Your task to perform on an android device: Go to CNN.com Image 0: 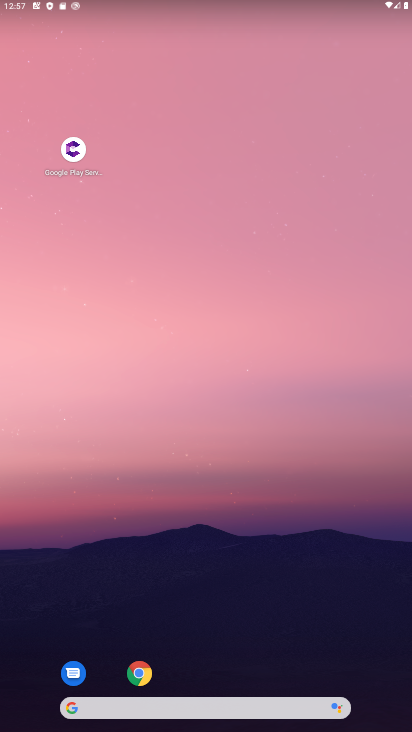
Step 0: click (136, 673)
Your task to perform on an android device: Go to CNN.com Image 1: 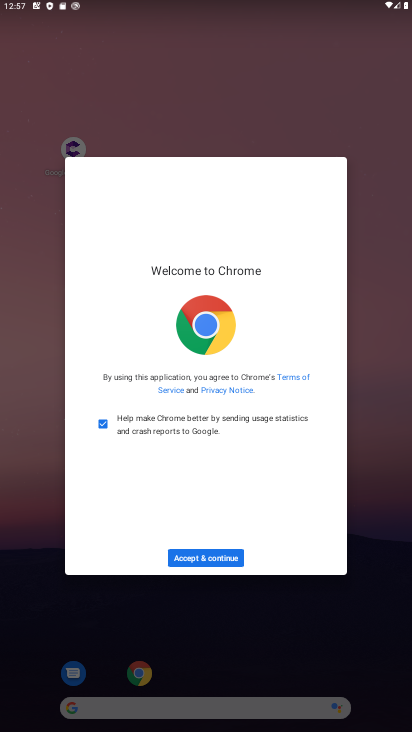
Step 1: click (206, 556)
Your task to perform on an android device: Go to CNN.com Image 2: 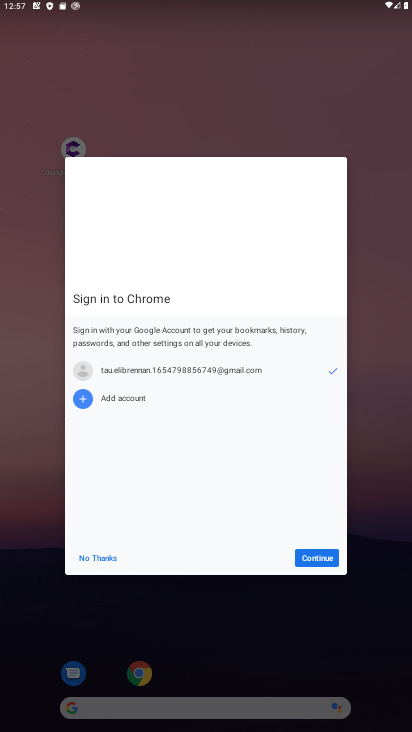
Step 2: click (308, 560)
Your task to perform on an android device: Go to CNN.com Image 3: 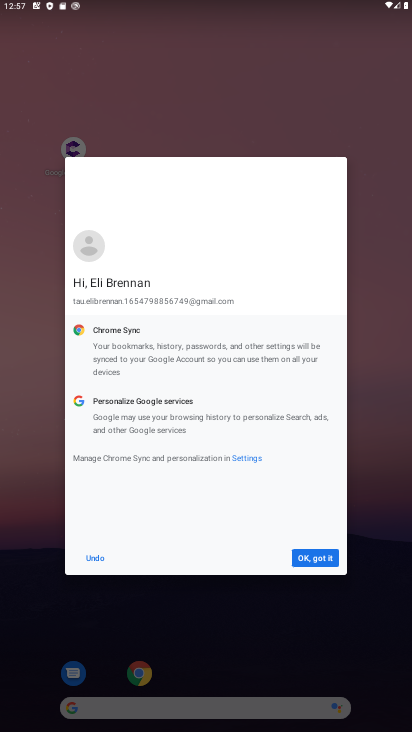
Step 3: click (308, 560)
Your task to perform on an android device: Go to CNN.com Image 4: 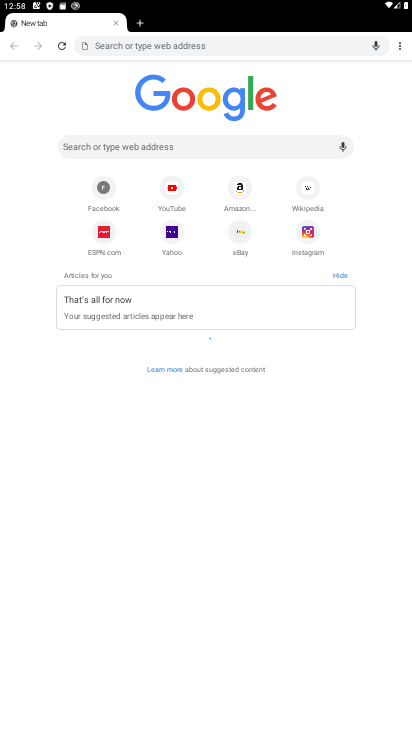
Step 4: click (203, 148)
Your task to perform on an android device: Go to CNN.com Image 5: 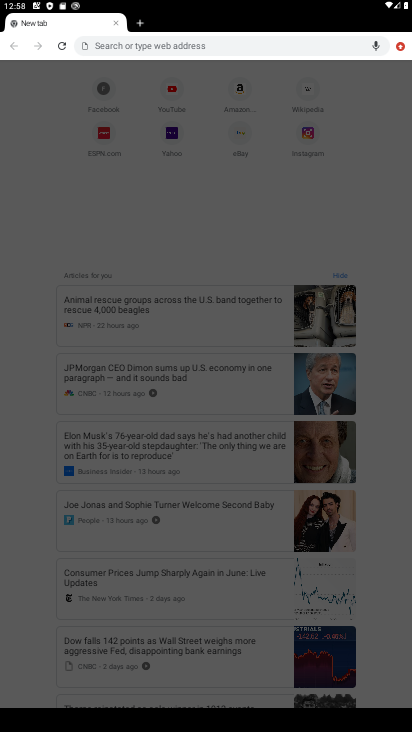
Step 5: type "CNN.com"
Your task to perform on an android device: Go to CNN.com Image 6: 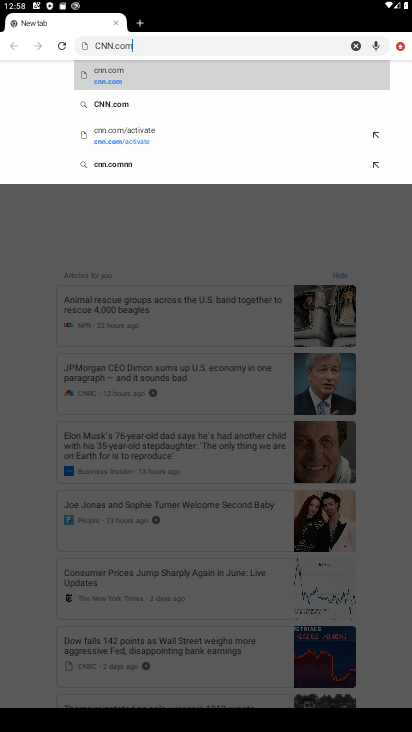
Step 6: click (166, 78)
Your task to perform on an android device: Go to CNN.com Image 7: 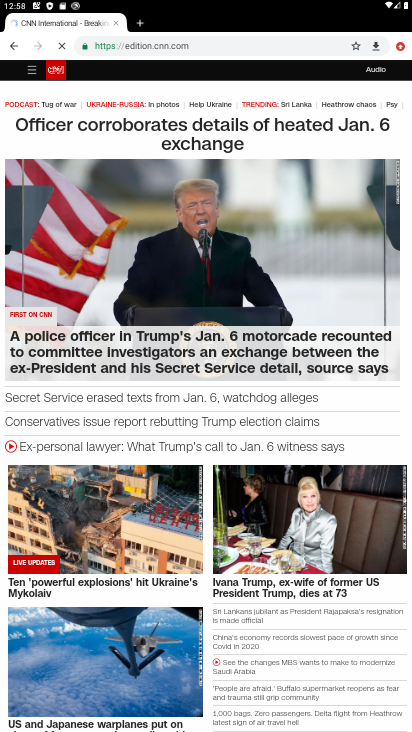
Step 7: task complete